Your task to perform on an android device: Search for Italian restaurants on Maps Image 0: 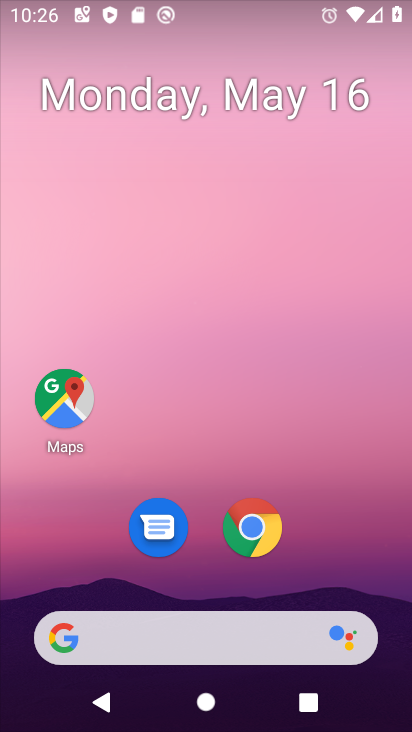
Step 0: click (62, 401)
Your task to perform on an android device: Search for Italian restaurants on Maps Image 1: 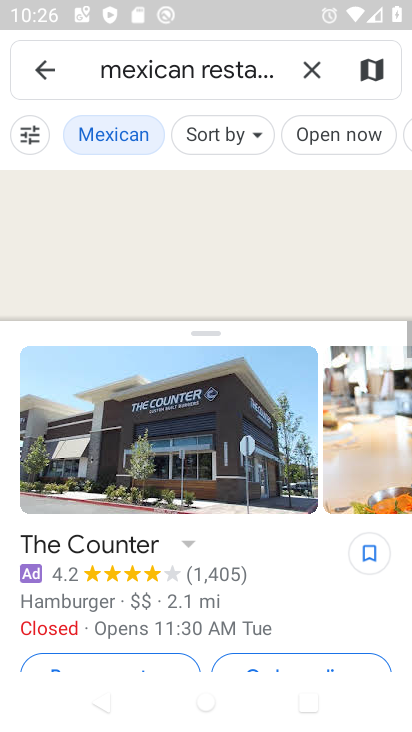
Step 1: click (317, 65)
Your task to perform on an android device: Search for Italian restaurants on Maps Image 2: 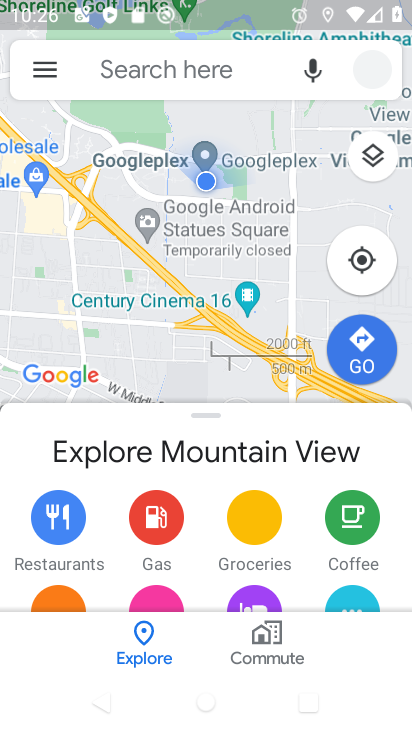
Step 2: click (114, 64)
Your task to perform on an android device: Search for Italian restaurants on Maps Image 3: 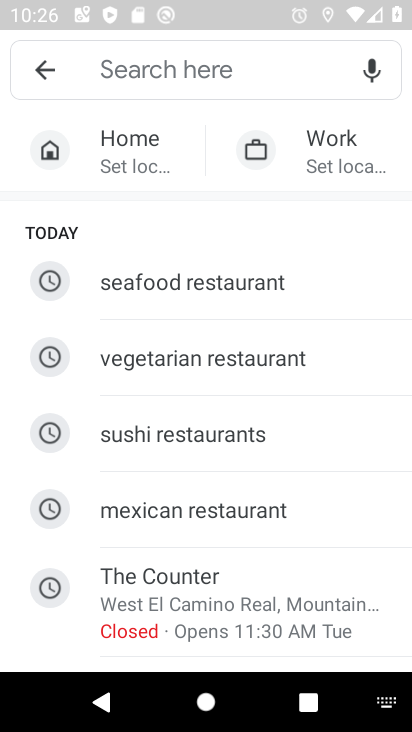
Step 3: type "italian restaurant"
Your task to perform on an android device: Search for Italian restaurants on Maps Image 4: 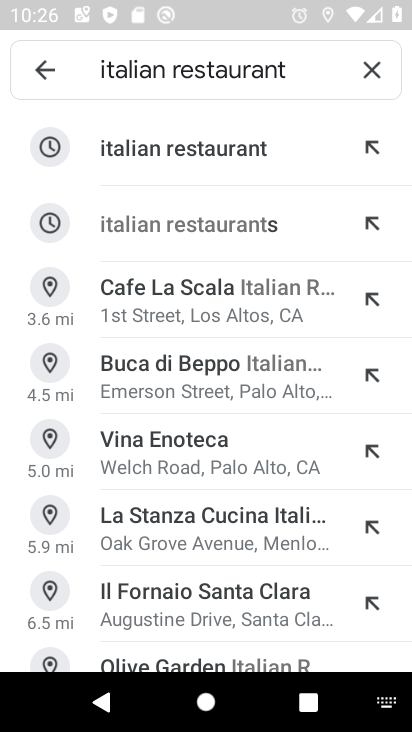
Step 4: click (211, 145)
Your task to perform on an android device: Search for Italian restaurants on Maps Image 5: 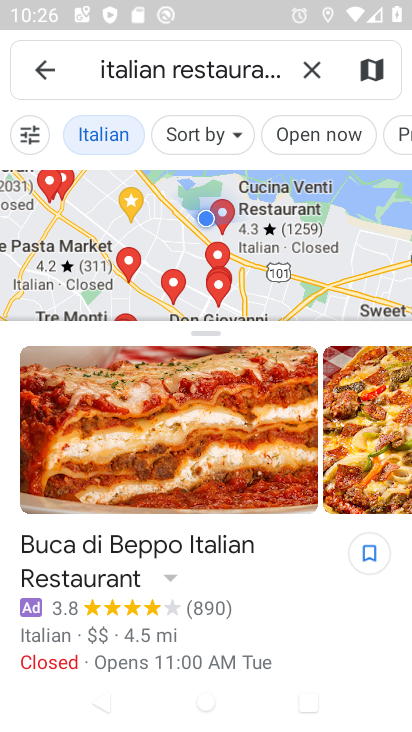
Step 5: task complete